Your task to perform on an android device: What's the news in the Bahamas? Image 0: 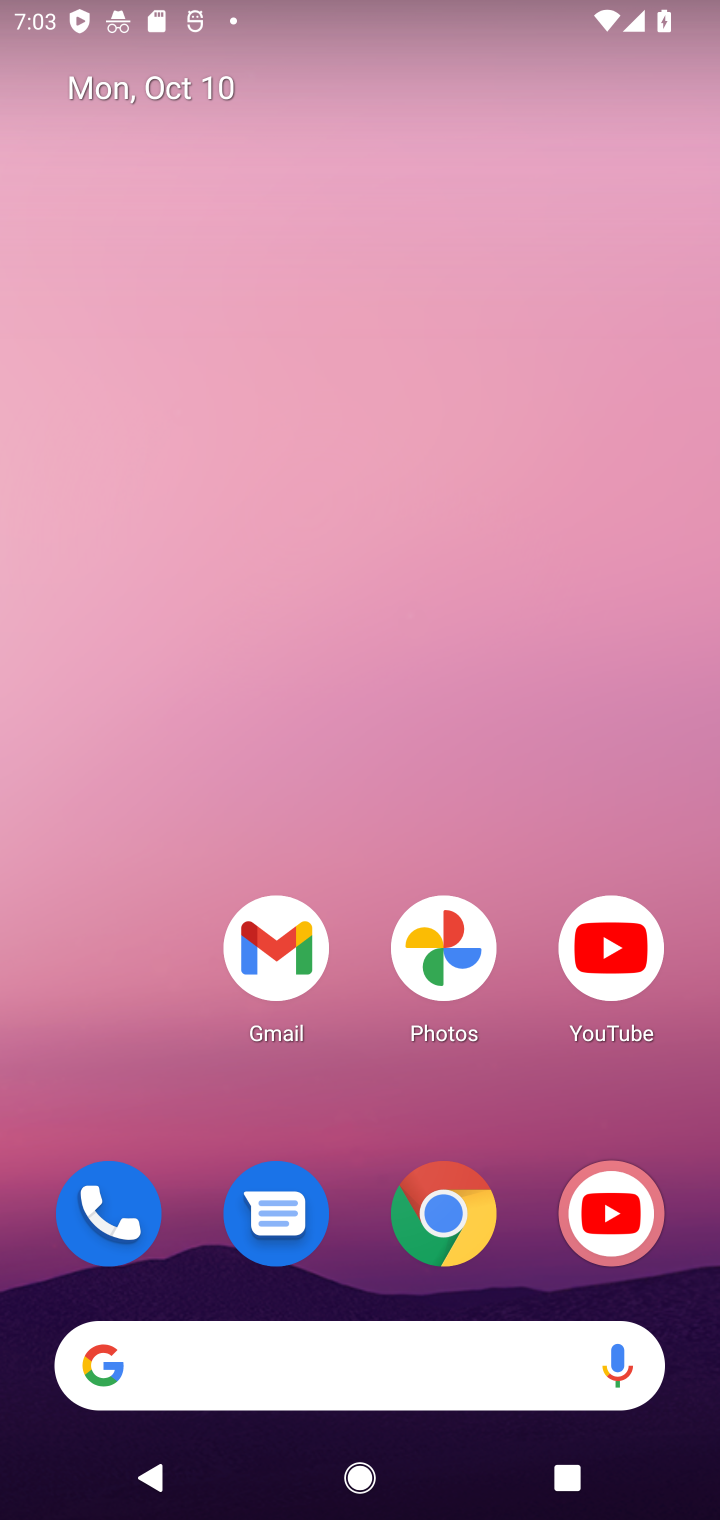
Step 0: click (251, 1339)
Your task to perform on an android device: What's the news in the Bahamas? Image 1: 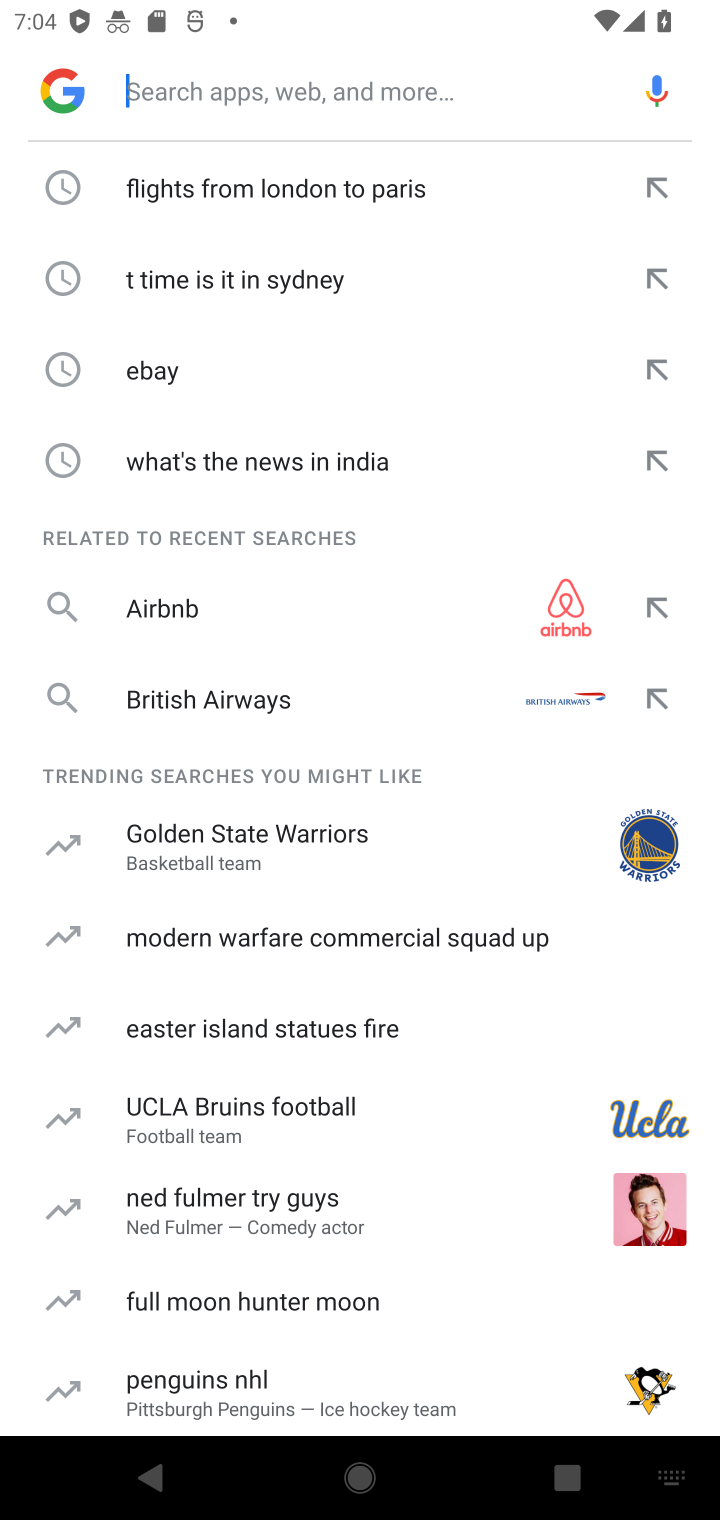
Step 1: click (225, 66)
Your task to perform on an android device: What's the news in the Bahamas? Image 2: 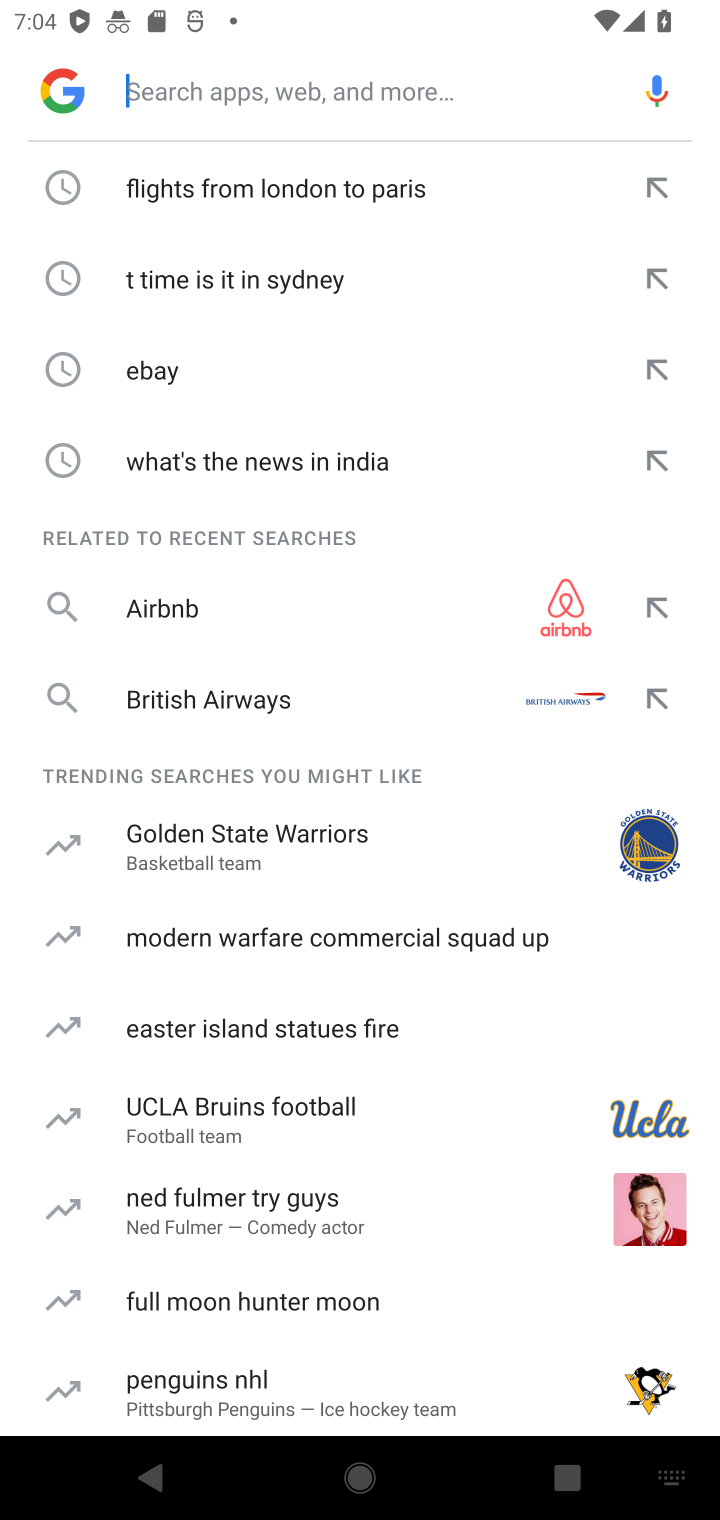
Step 2: type "What's the news in the Bahamas"
Your task to perform on an android device: What's the news in the Bahamas? Image 3: 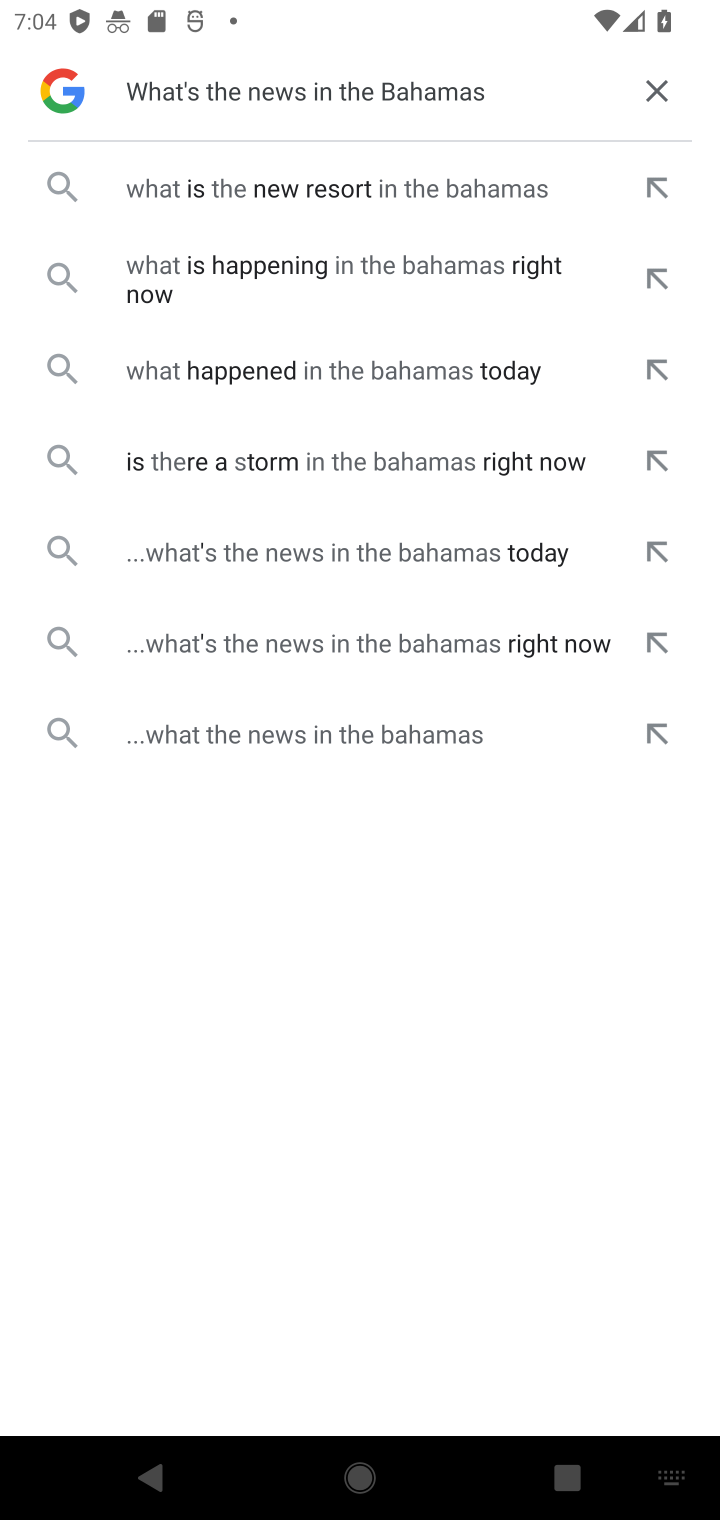
Step 3: click (285, 547)
Your task to perform on an android device: What's the news in the Bahamas? Image 4: 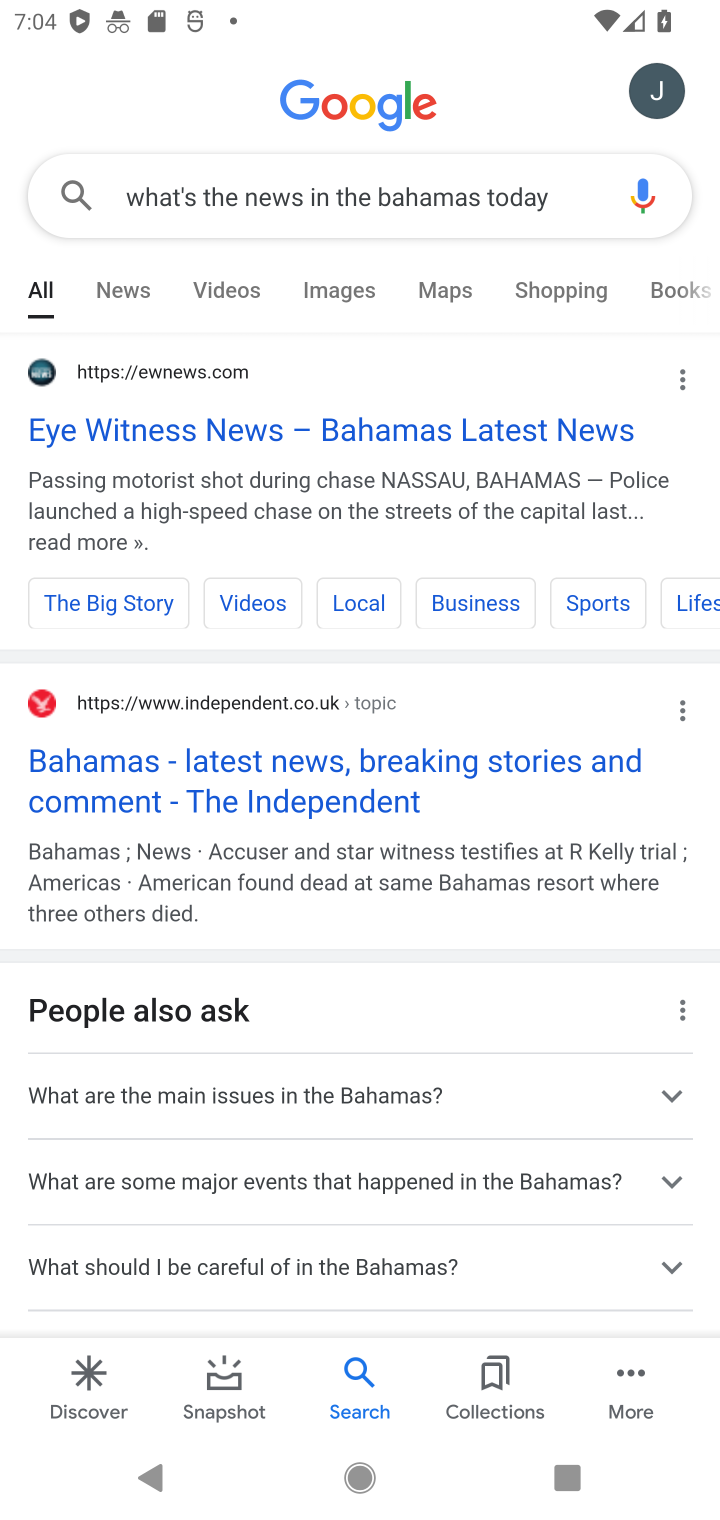
Step 4: task complete